Your task to perform on an android device: Open the stopwatch Image 0: 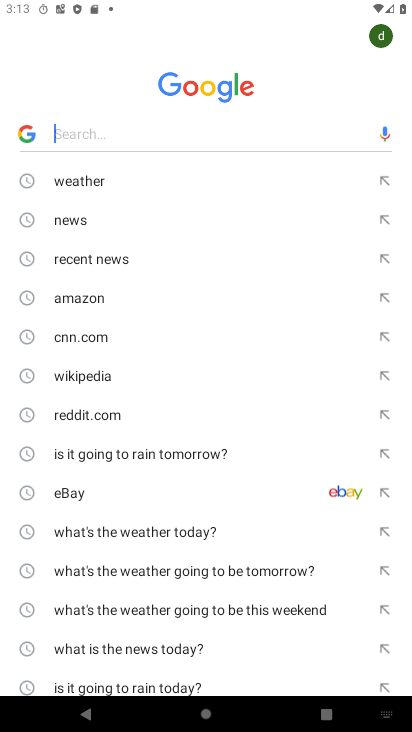
Step 0: press home button
Your task to perform on an android device: Open the stopwatch Image 1: 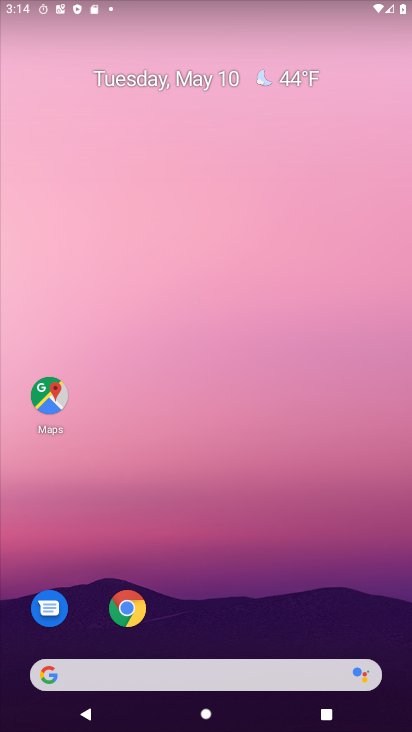
Step 1: drag from (262, 606) to (239, 0)
Your task to perform on an android device: Open the stopwatch Image 2: 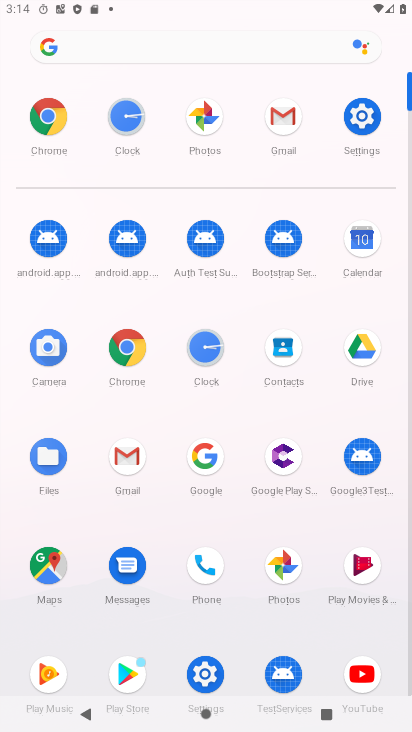
Step 2: click (130, 123)
Your task to perform on an android device: Open the stopwatch Image 3: 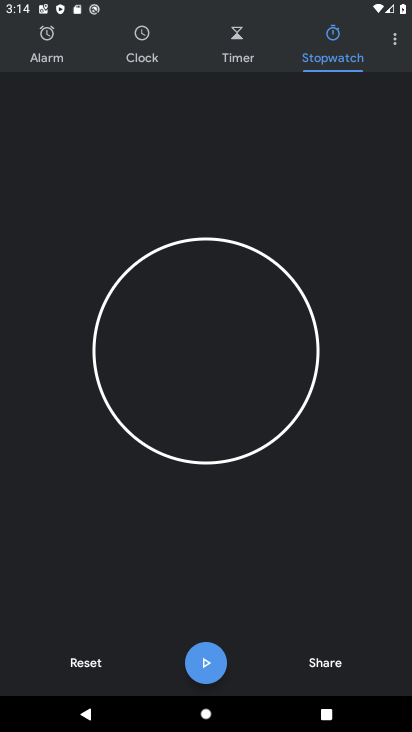
Step 3: task complete